Your task to perform on an android device: toggle wifi Image 0: 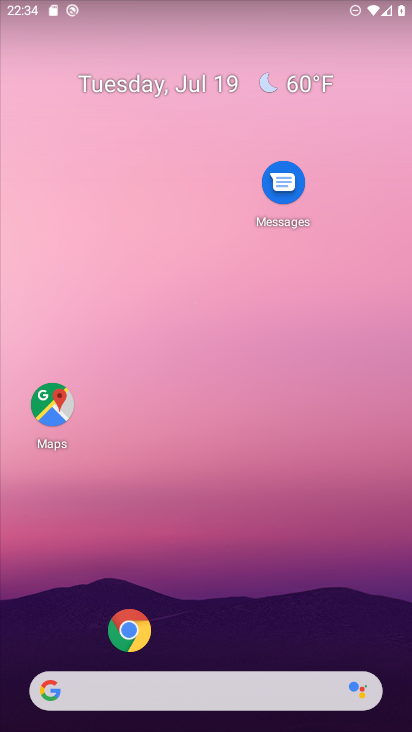
Step 0: drag from (22, 706) to (158, 85)
Your task to perform on an android device: toggle wifi Image 1: 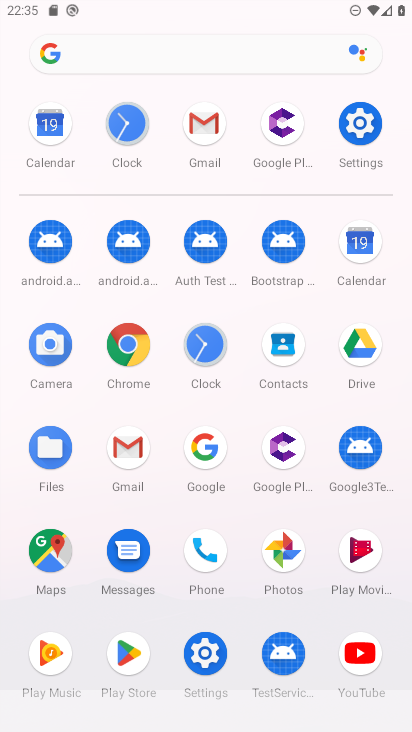
Step 1: click (364, 131)
Your task to perform on an android device: toggle wifi Image 2: 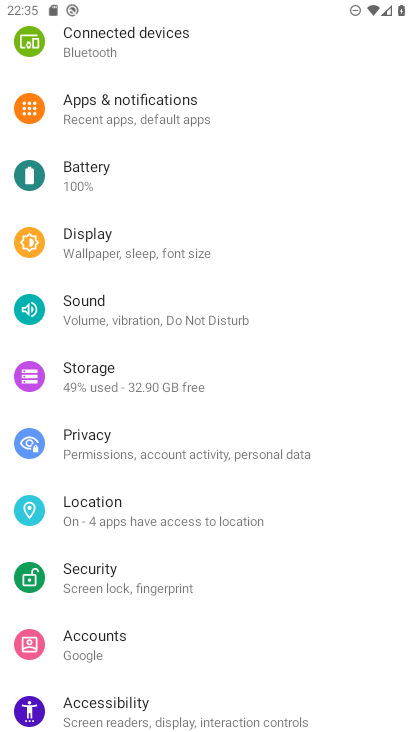
Step 2: click (212, 113)
Your task to perform on an android device: toggle wifi Image 3: 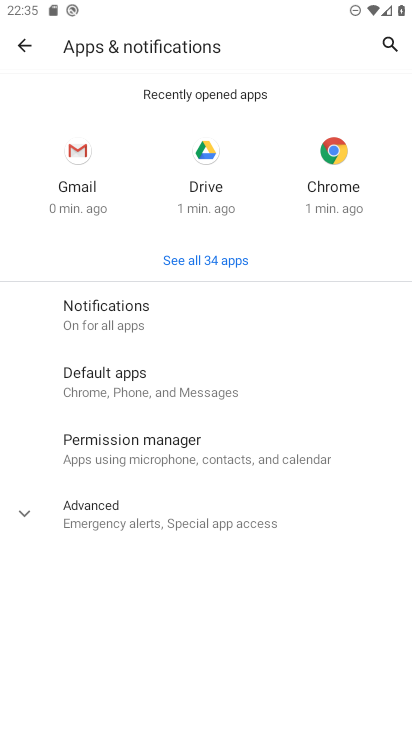
Step 3: click (26, 45)
Your task to perform on an android device: toggle wifi Image 4: 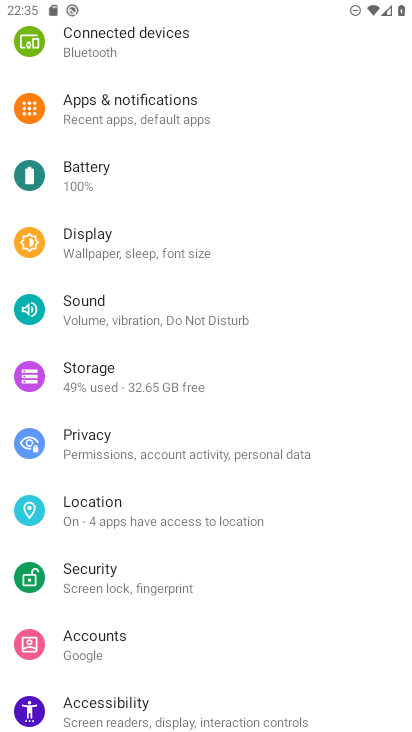
Step 4: click (250, 621)
Your task to perform on an android device: toggle wifi Image 5: 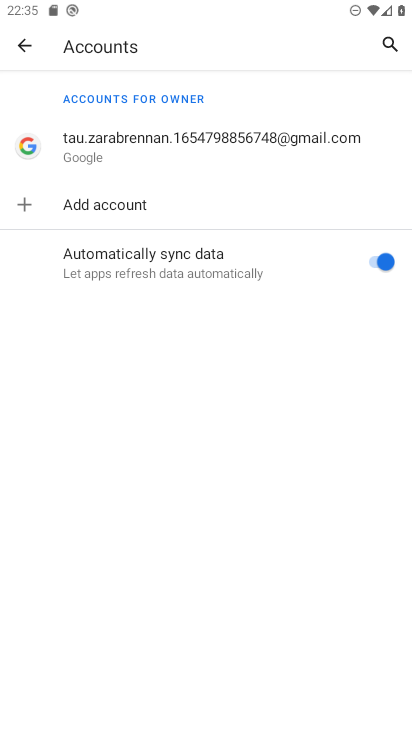
Step 5: task complete